Your task to perform on an android device: Open internet settings Image 0: 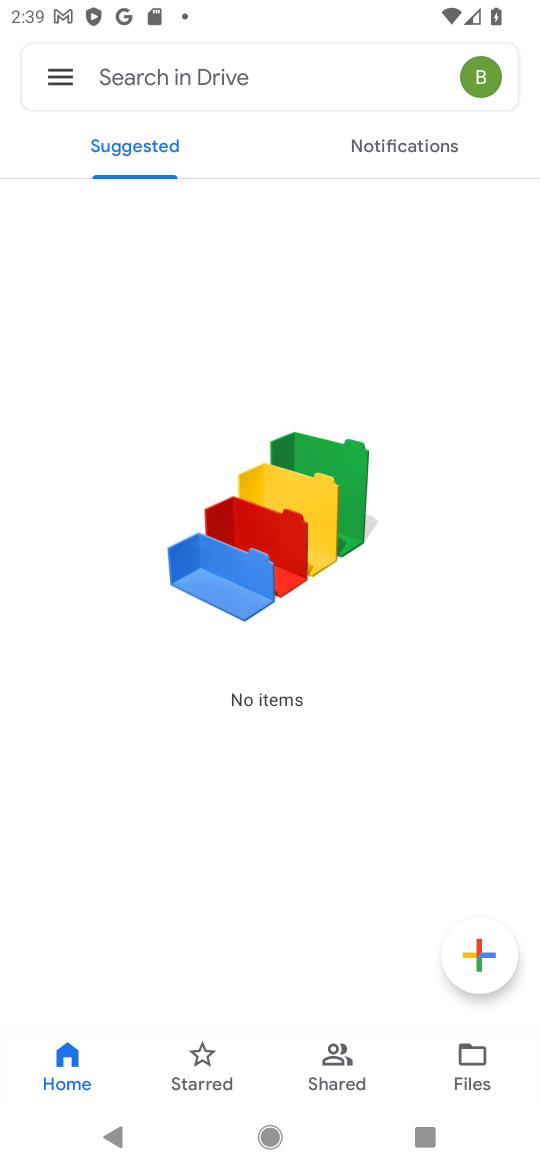
Step 0: task complete